Your task to perform on an android device: allow cookies in the chrome app Image 0: 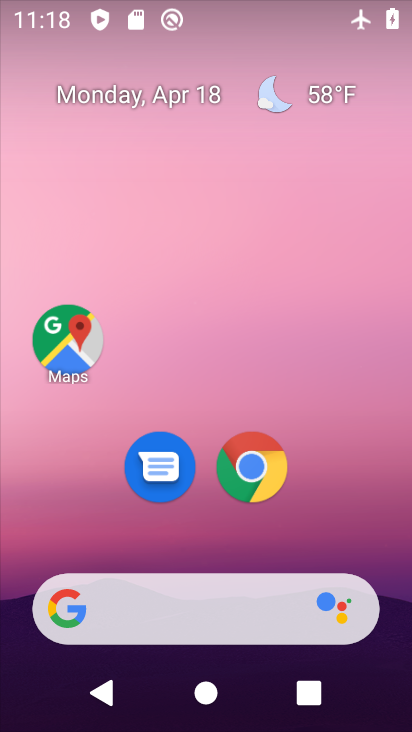
Step 0: click (242, 473)
Your task to perform on an android device: allow cookies in the chrome app Image 1: 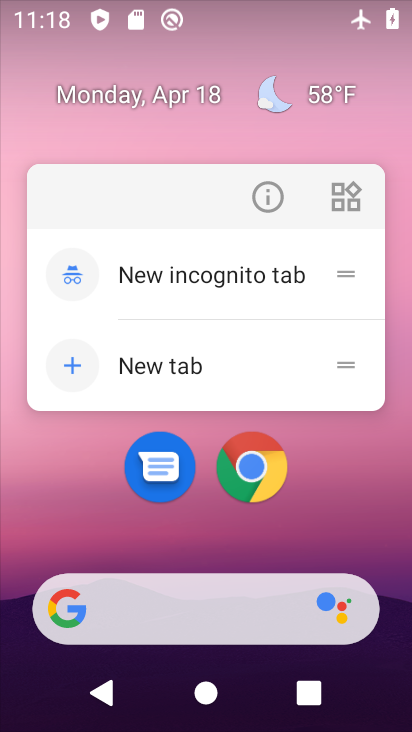
Step 1: click (259, 469)
Your task to perform on an android device: allow cookies in the chrome app Image 2: 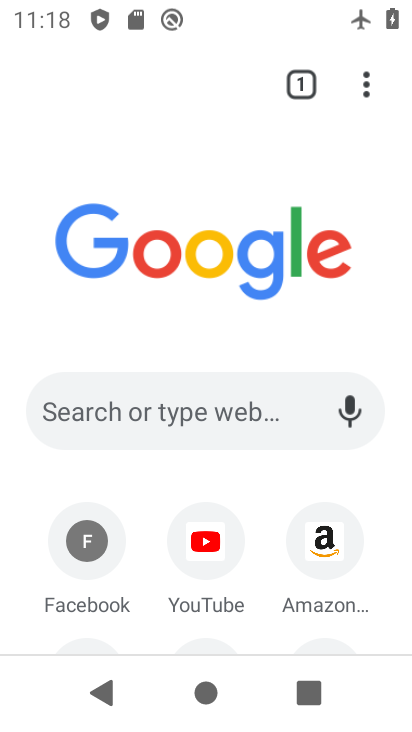
Step 2: click (360, 87)
Your task to perform on an android device: allow cookies in the chrome app Image 3: 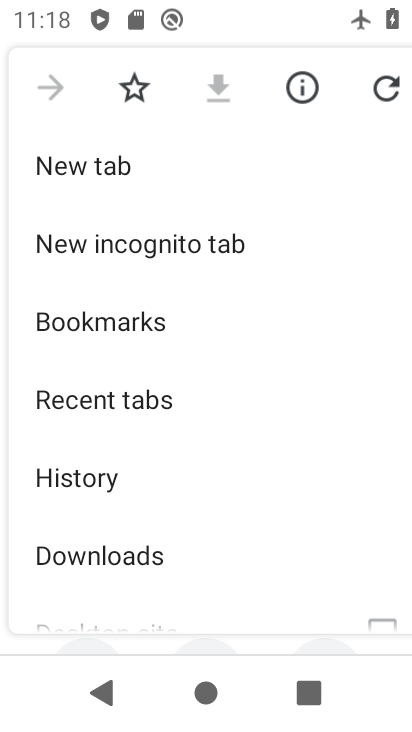
Step 3: drag from (207, 507) to (204, 194)
Your task to perform on an android device: allow cookies in the chrome app Image 4: 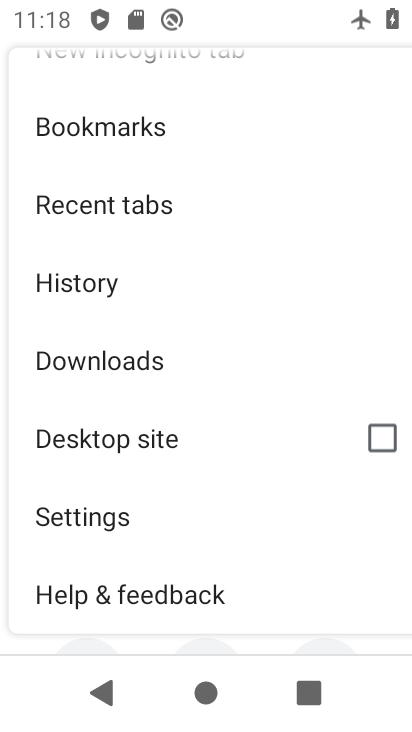
Step 4: click (165, 527)
Your task to perform on an android device: allow cookies in the chrome app Image 5: 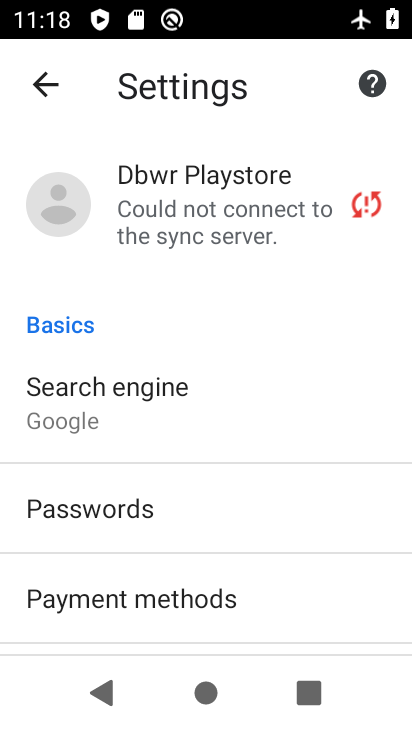
Step 5: drag from (201, 510) to (198, 308)
Your task to perform on an android device: allow cookies in the chrome app Image 6: 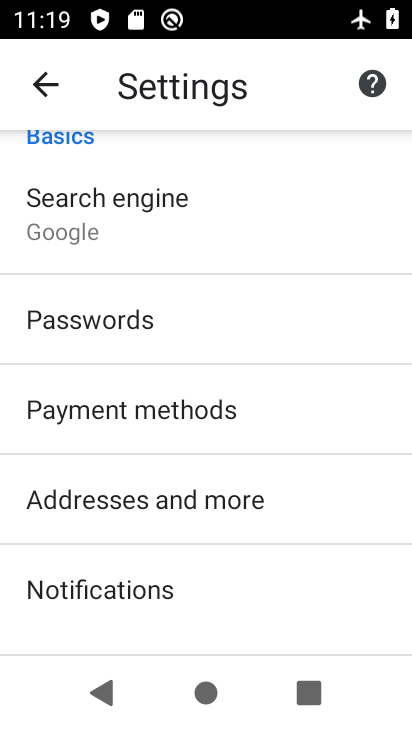
Step 6: drag from (223, 478) to (237, 210)
Your task to perform on an android device: allow cookies in the chrome app Image 7: 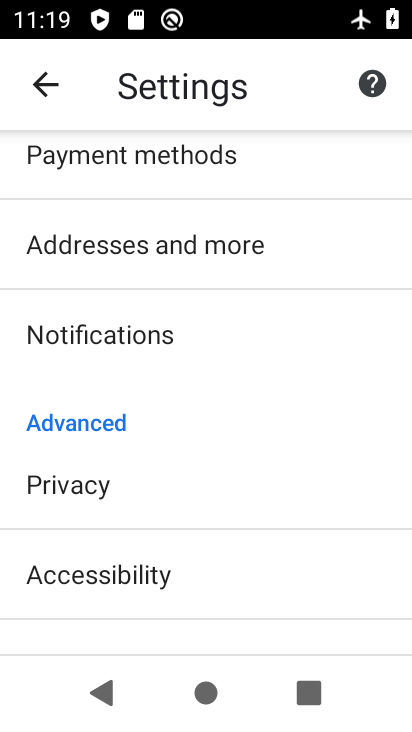
Step 7: drag from (192, 507) to (196, 284)
Your task to perform on an android device: allow cookies in the chrome app Image 8: 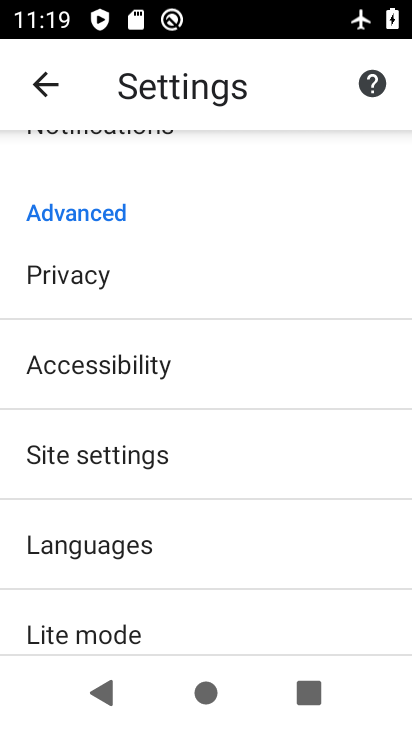
Step 8: click (147, 456)
Your task to perform on an android device: allow cookies in the chrome app Image 9: 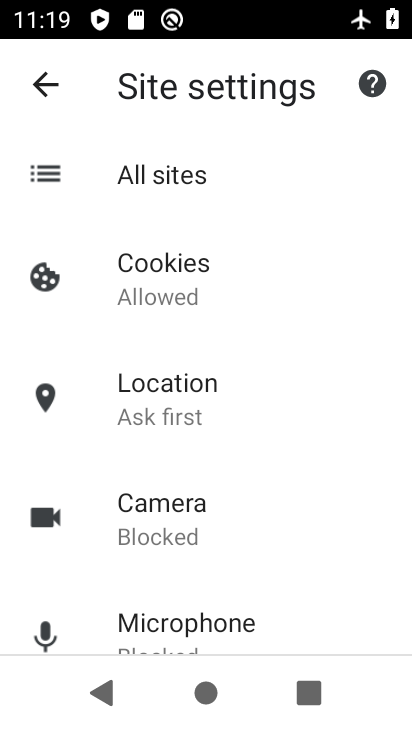
Step 9: click (190, 283)
Your task to perform on an android device: allow cookies in the chrome app Image 10: 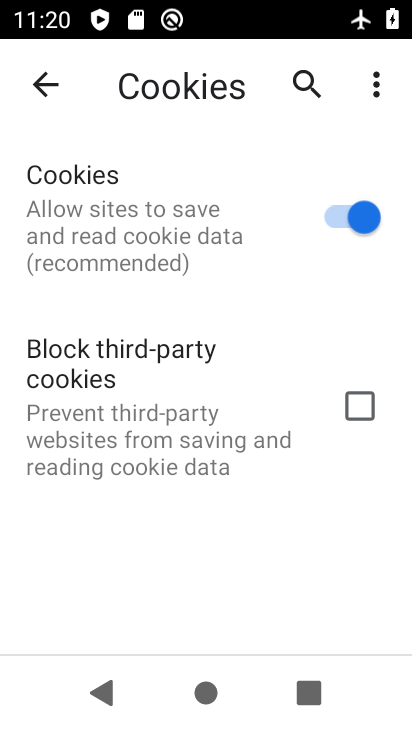
Step 10: task complete